Your task to perform on an android device: Go to settings Image 0: 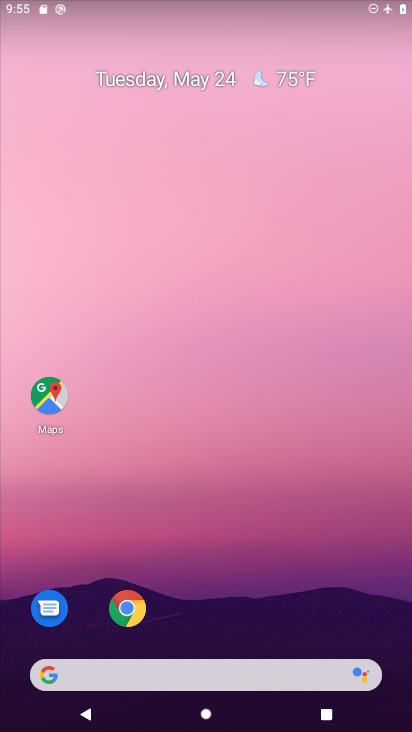
Step 0: drag from (295, 523) to (179, 24)
Your task to perform on an android device: Go to settings Image 1: 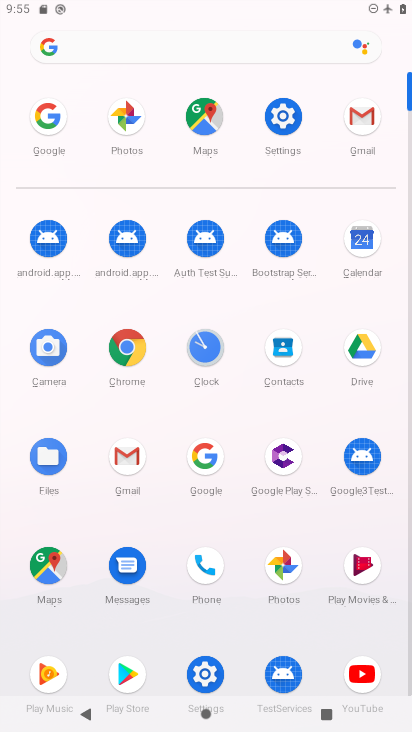
Step 1: click (289, 127)
Your task to perform on an android device: Go to settings Image 2: 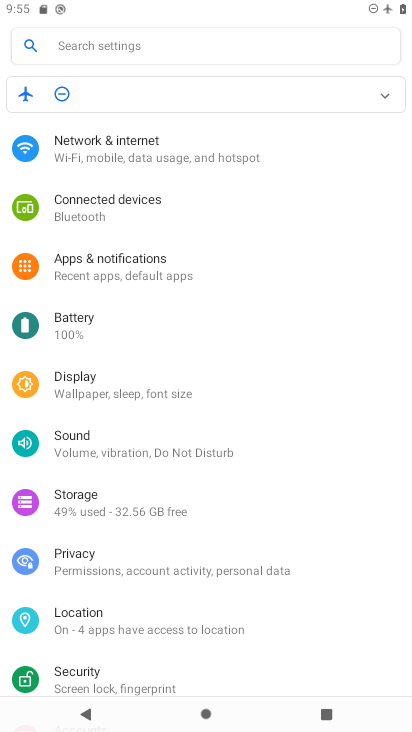
Step 2: task complete